Your task to perform on an android device: add a contact in the contacts app Image 0: 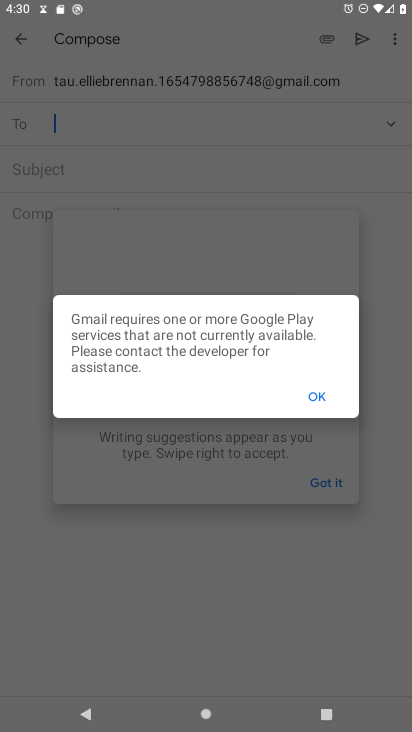
Step 0: press home button
Your task to perform on an android device: add a contact in the contacts app Image 1: 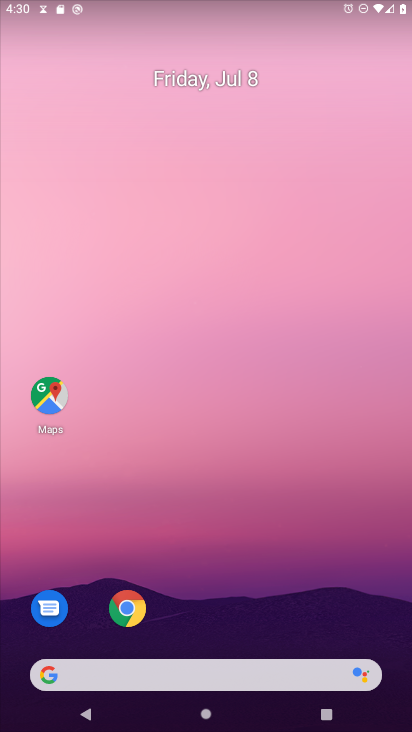
Step 1: drag from (256, 603) to (260, 0)
Your task to perform on an android device: add a contact in the contacts app Image 2: 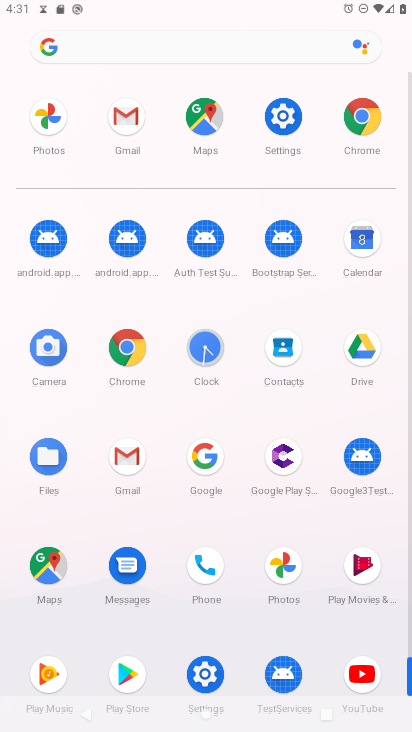
Step 2: press home button
Your task to perform on an android device: add a contact in the contacts app Image 3: 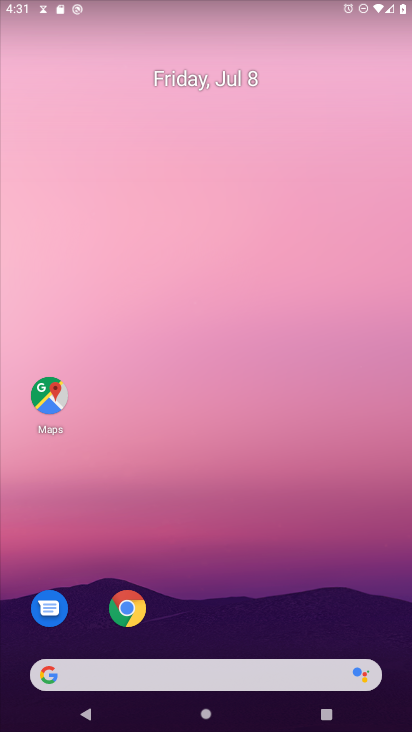
Step 3: drag from (305, 672) to (292, 12)
Your task to perform on an android device: add a contact in the contacts app Image 4: 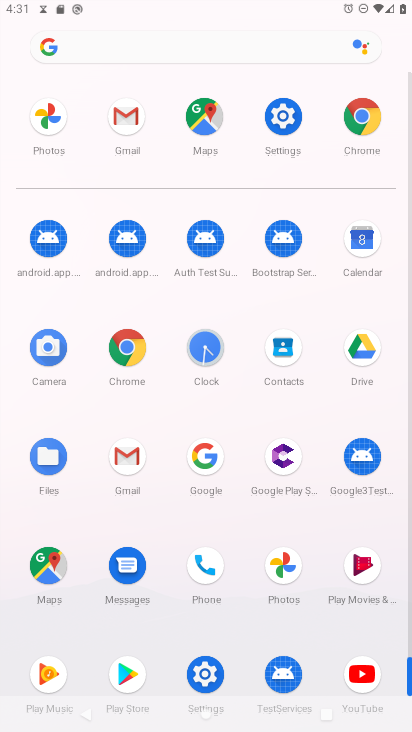
Step 4: click (275, 332)
Your task to perform on an android device: add a contact in the contacts app Image 5: 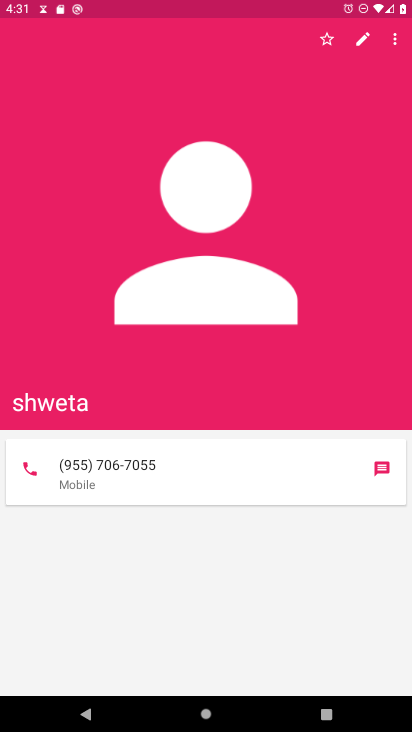
Step 5: press back button
Your task to perform on an android device: add a contact in the contacts app Image 6: 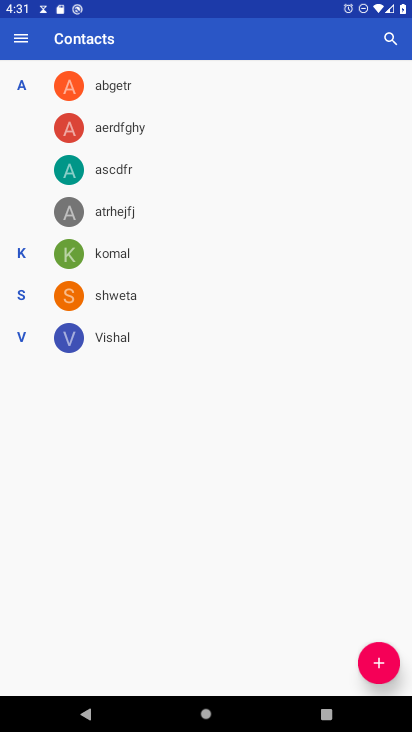
Step 6: click (376, 654)
Your task to perform on an android device: add a contact in the contacts app Image 7: 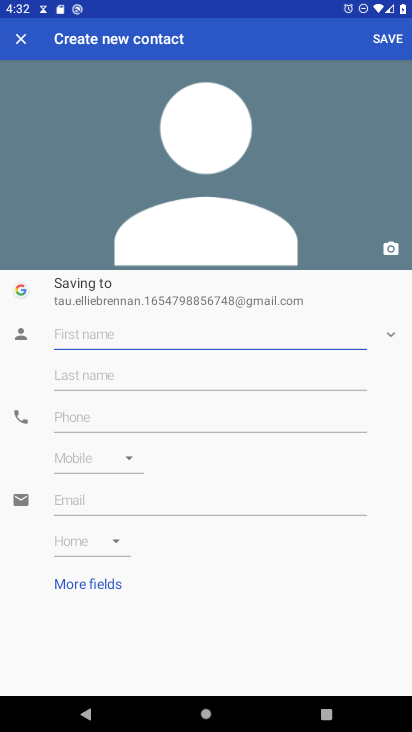
Step 7: type "monti"
Your task to perform on an android device: add a contact in the contacts app Image 8: 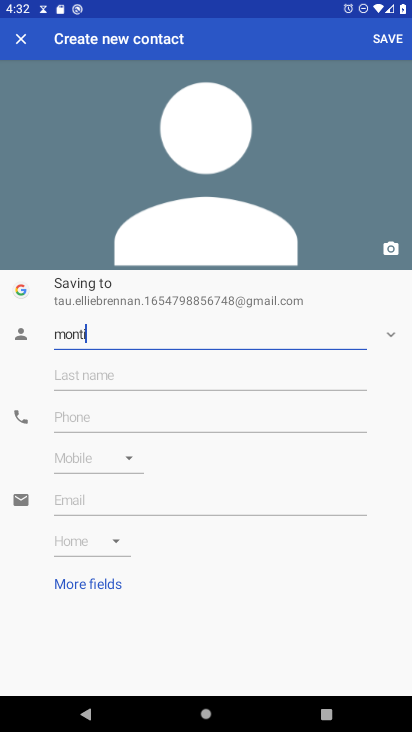
Step 8: click (151, 424)
Your task to perform on an android device: add a contact in the contacts app Image 9: 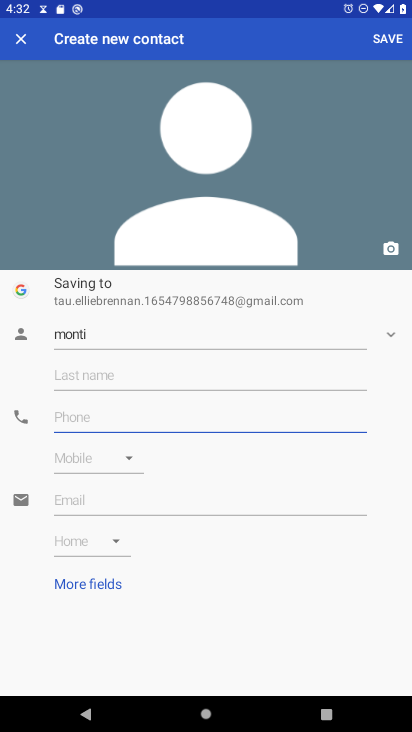
Step 9: type "87678987676"
Your task to perform on an android device: add a contact in the contacts app Image 10: 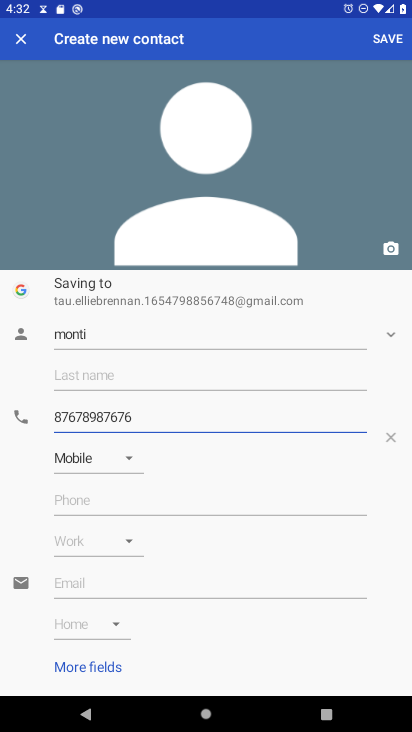
Step 10: click (386, 44)
Your task to perform on an android device: add a contact in the contacts app Image 11: 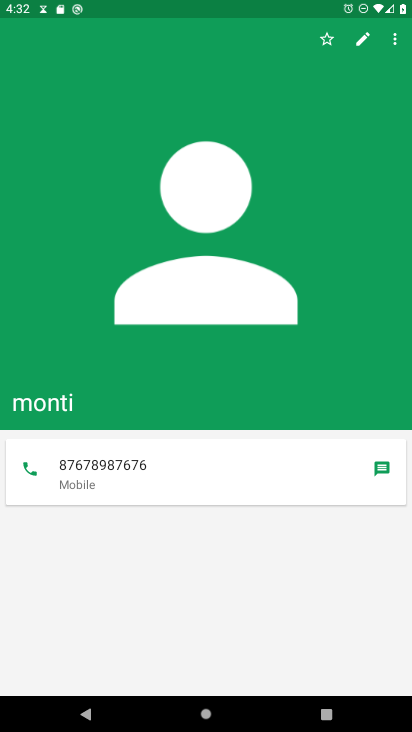
Step 11: task complete